Your task to perform on an android device: When is my next meeting? Image 0: 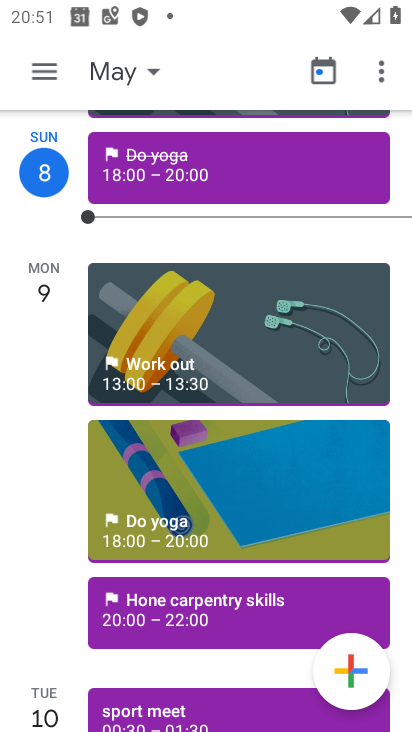
Step 0: press home button
Your task to perform on an android device: When is my next meeting? Image 1: 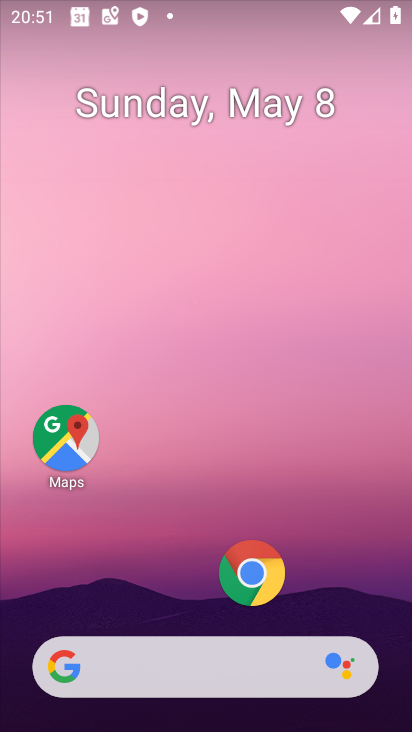
Step 1: drag from (165, 593) to (196, 170)
Your task to perform on an android device: When is my next meeting? Image 2: 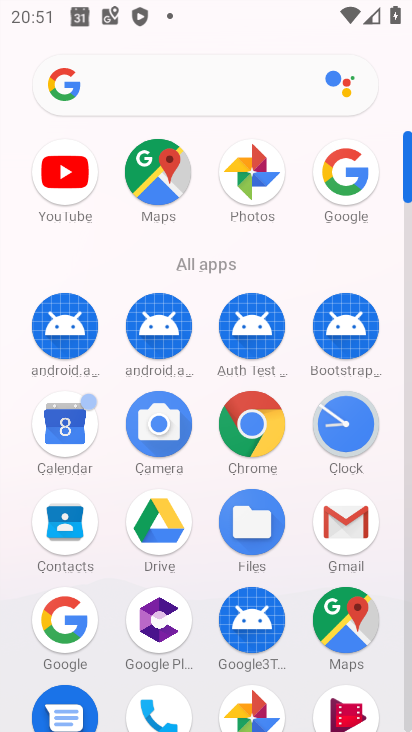
Step 2: click (76, 424)
Your task to perform on an android device: When is my next meeting? Image 3: 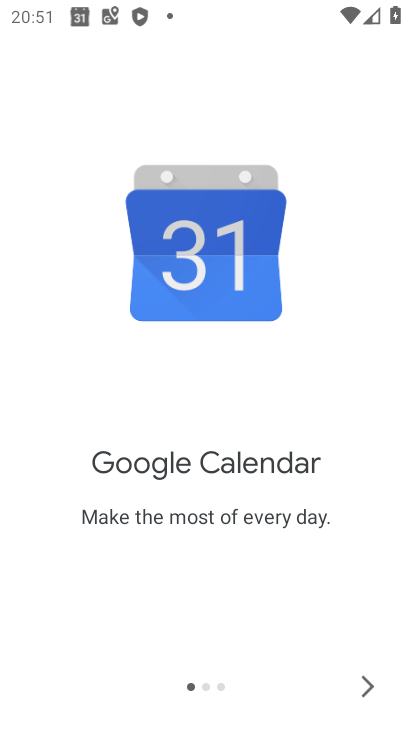
Step 3: click (367, 679)
Your task to perform on an android device: When is my next meeting? Image 4: 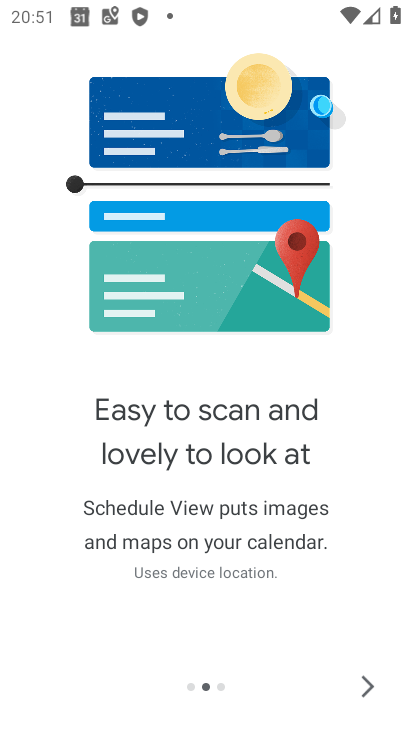
Step 4: click (365, 679)
Your task to perform on an android device: When is my next meeting? Image 5: 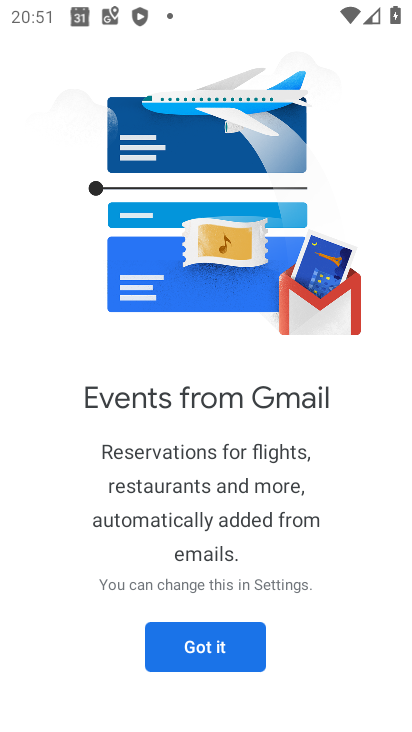
Step 5: click (363, 678)
Your task to perform on an android device: When is my next meeting? Image 6: 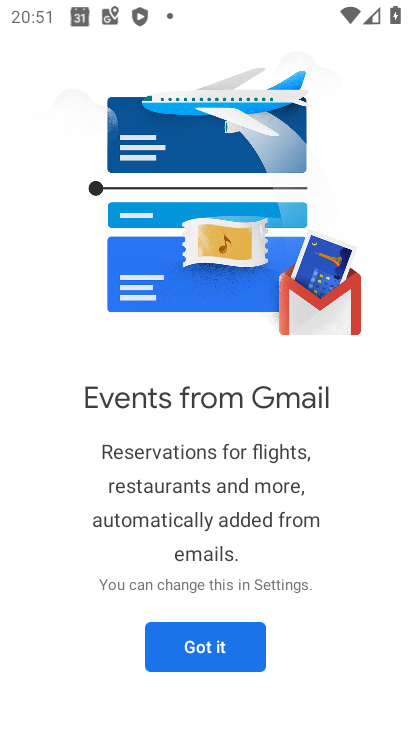
Step 6: click (217, 654)
Your task to perform on an android device: When is my next meeting? Image 7: 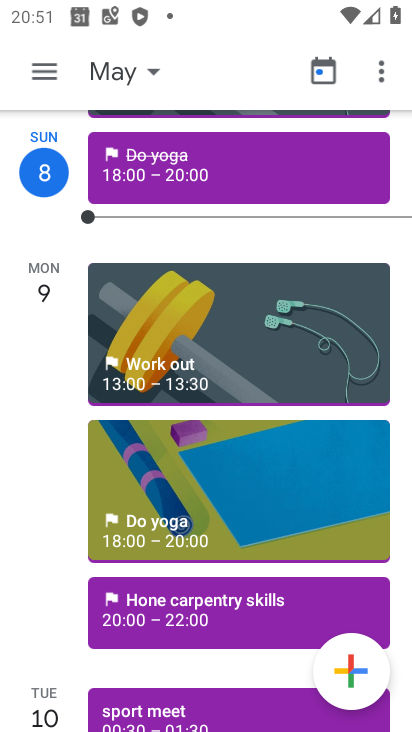
Step 7: click (154, 74)
Your task to perform on an android device: When is my next meeting? Image 8: 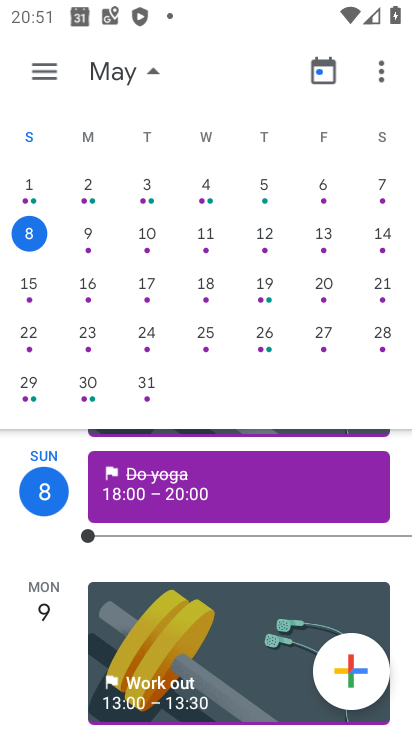
Step 8: click (85, 241)
Your task to perform on an android device: When is my next meeting? Image 9: 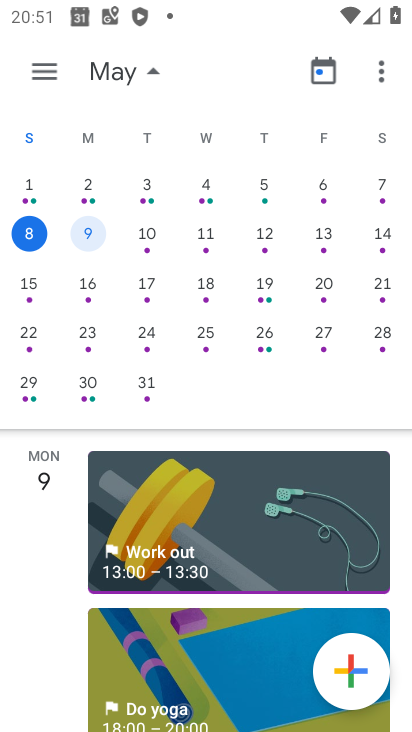
Step 9: task complete